Your task to perform on an android device: Open Android settings Image 0: 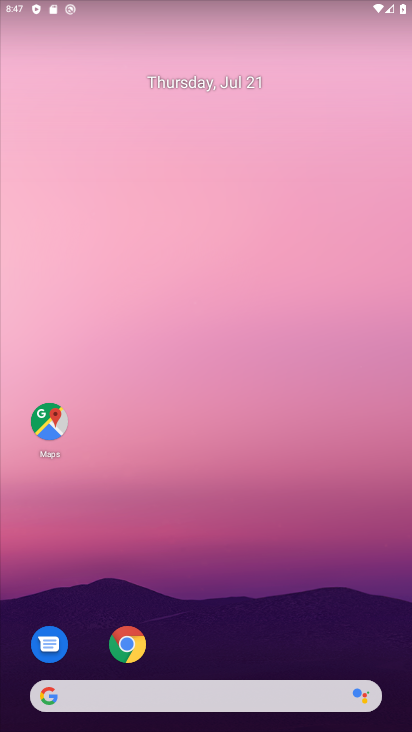
Step 0: drag from (325, 599) to (246, 84)
Your task to perform on an android device: Open Android settings Image 1: 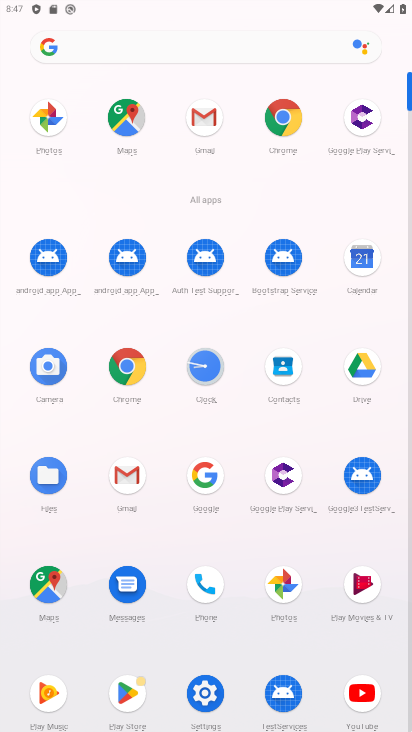
Step 1: click (200, 692)
Your task to perform on an android device: Open Android settings Image 2: 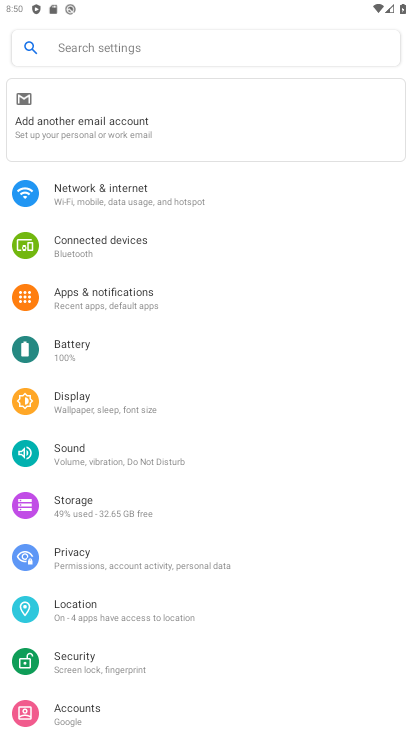
Step 2: task complete